Your task to perform on an android device: toggle location history Image 0: 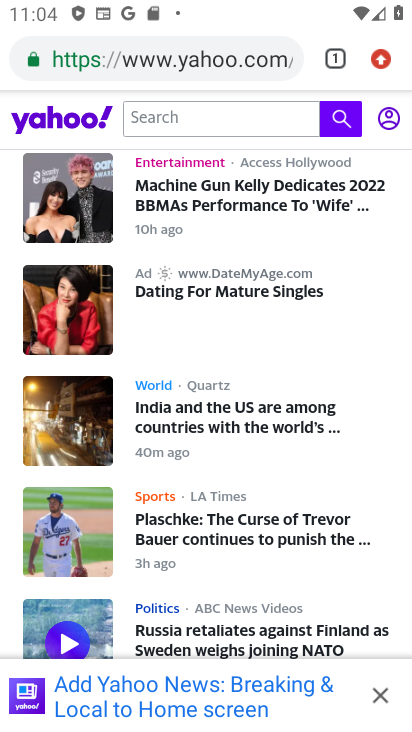
Step 0: press home button
Your task to perform on an android device: toggle location history Image 1: 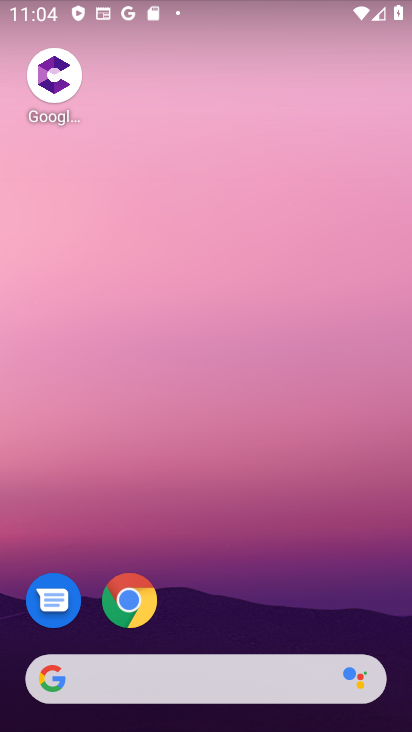
Step 1: drag from (220, 518) to (205, 9)
Your task to perform on an android device: toggle location history Image 2: 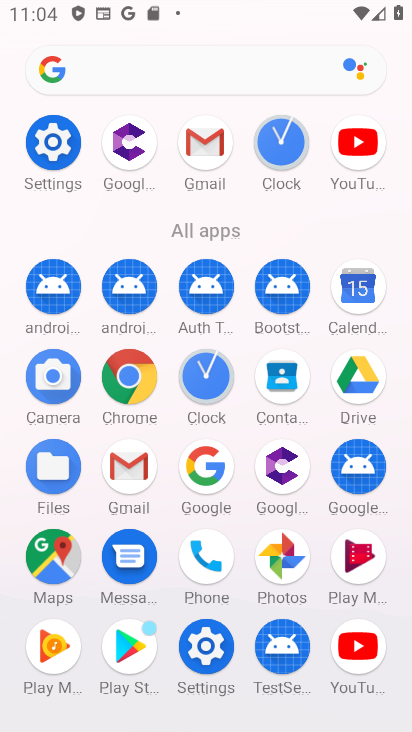
Step 2: click (54, 557)
Your task to perform on an android device: toggle location history Image 3: 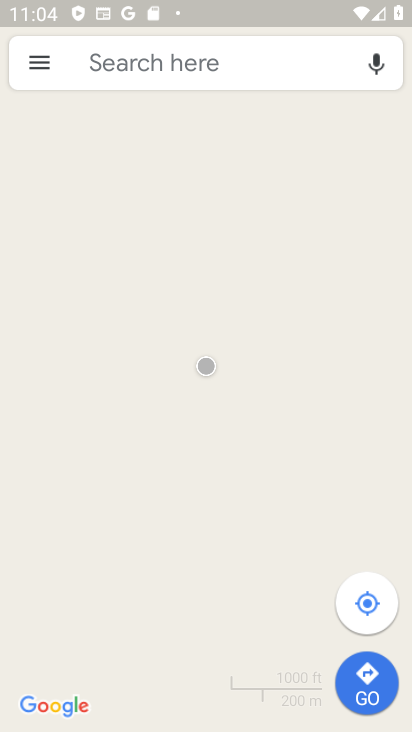
Step 3: click (46, 58)
Your task to perform on an android device: toggle location history Image 4: 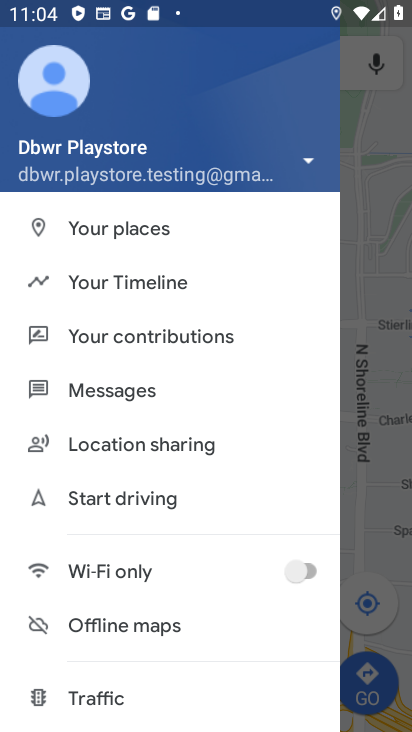
Step 4: click (156, 283)
Your task to perform on an android device: toggle location history Image 5: 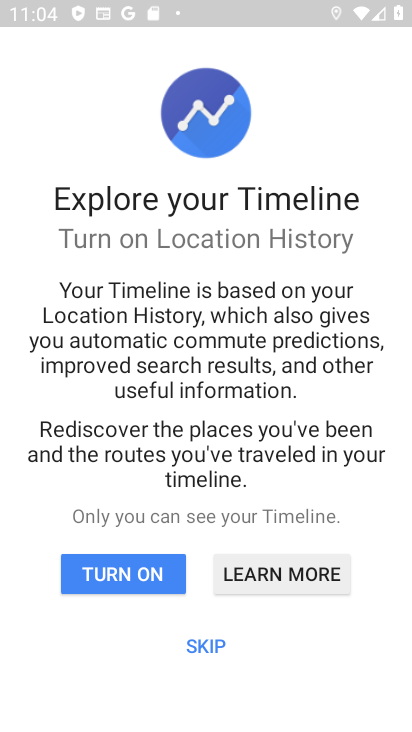
Step 5: click (202, 650)
Your task to perform on an android device: toggle location history Image 6: 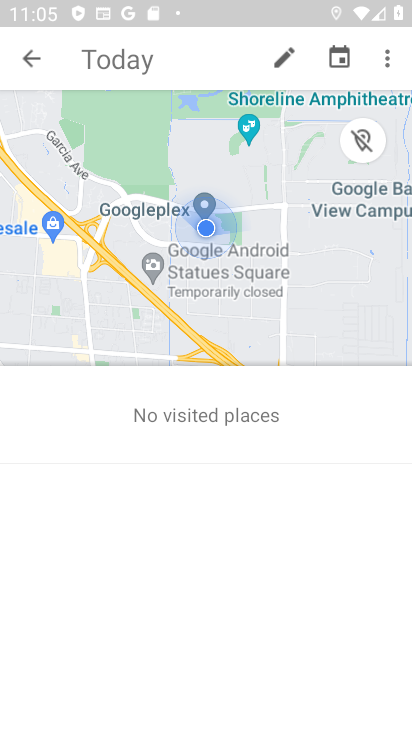
Step 6: click (389, 57)
Your task to perform on an android device: toggle location history Image 7: 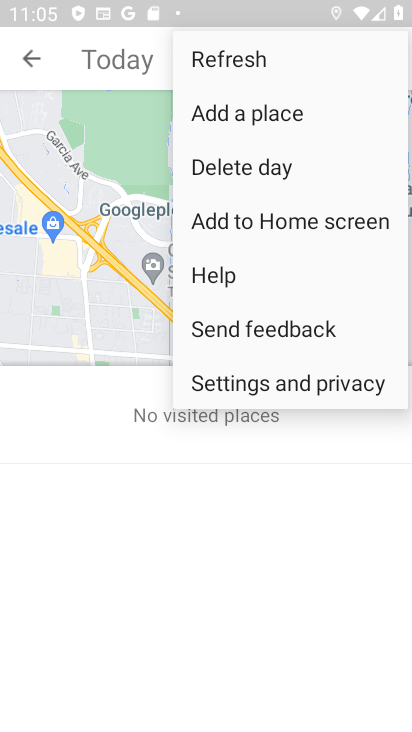
Step 7: click (300, 381)
Your task to perform on an android device: toggle location history Image 8: 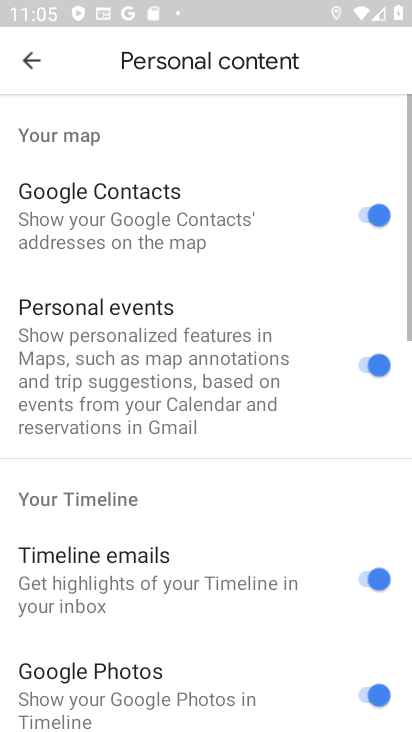
Step 8: click (280, 483)
Your task to perform on an android device: toggle location history Image 9: 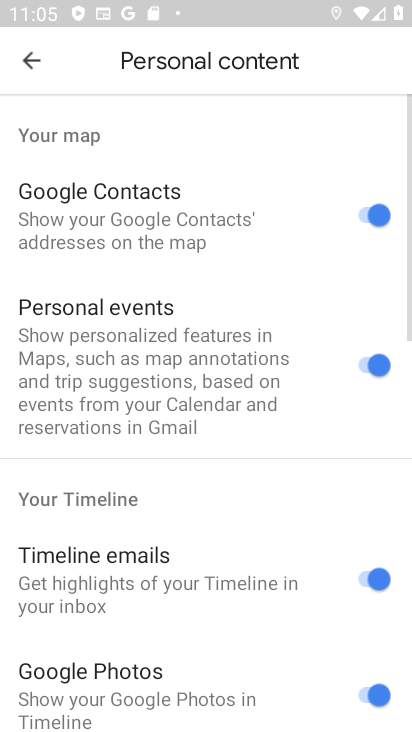
Step 9: drag from (280, 483) to (219, 142)
Your task to perform on an android device: toggle location history Image 10: 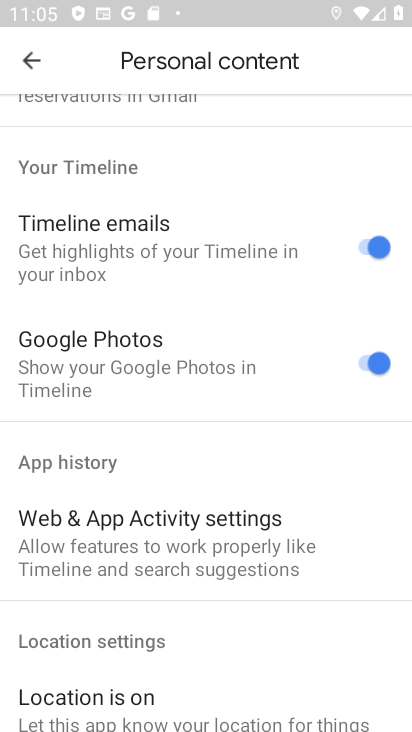
Step 10: drag from (239, 608) to (205, 222)
Your task to perform on an android device: toggle location history Image 11: 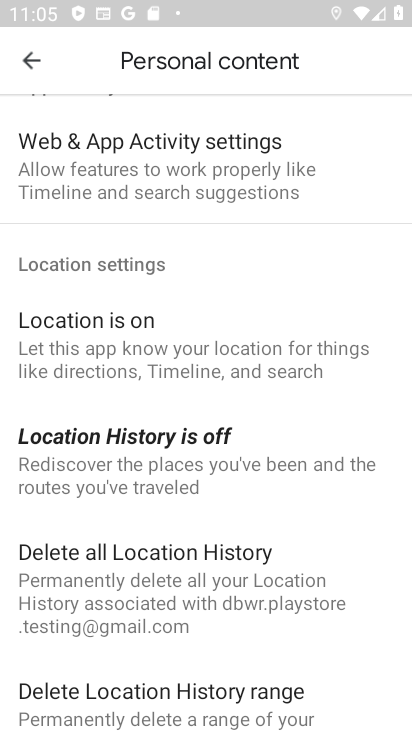
Step 11: click (127, 443)
Your task to perform on an android device: toggle location history Image 12: 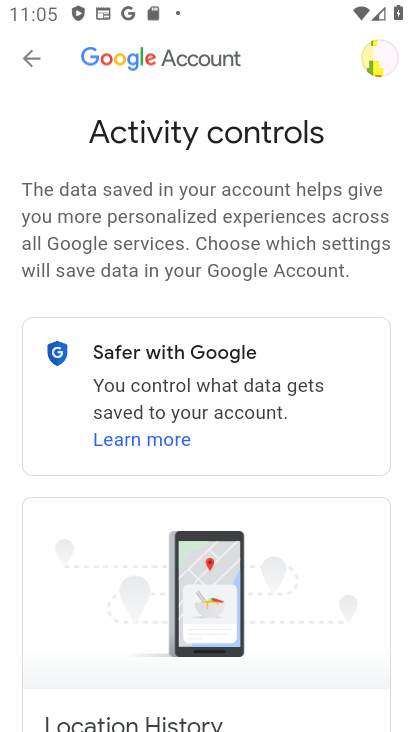
Step 12: drag from (317, 658) to (288, 300)
Your task to perform on an android device: toggle location history Image 13: 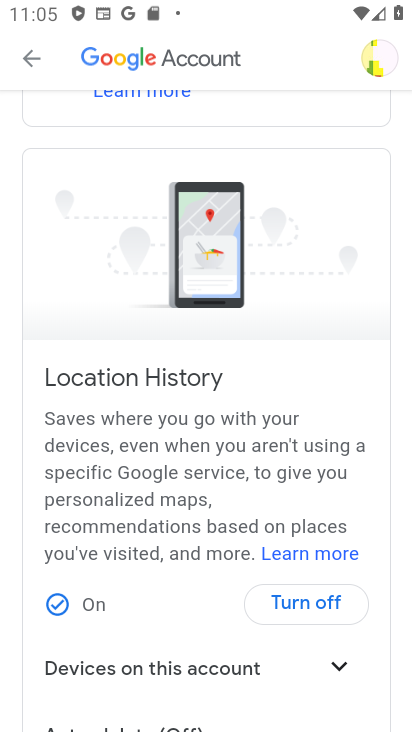
Step 13: click (316, 607)
Your task to perform on an android device: toggle location history Image 14: 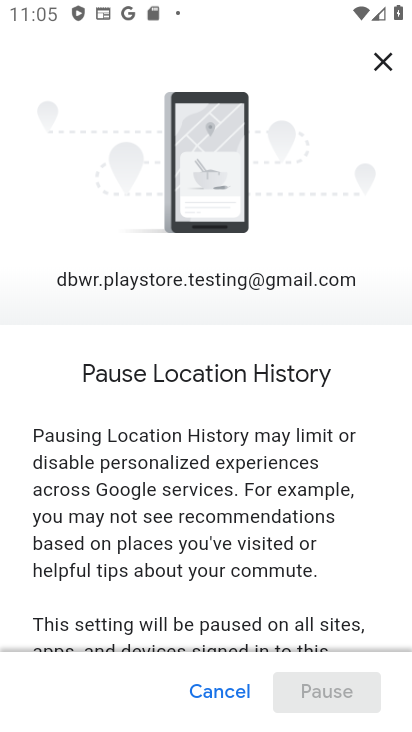
Step 14: drag from (284, 563) to (185, 238)
Your task to perform on an android device: toggle location history Image 15: 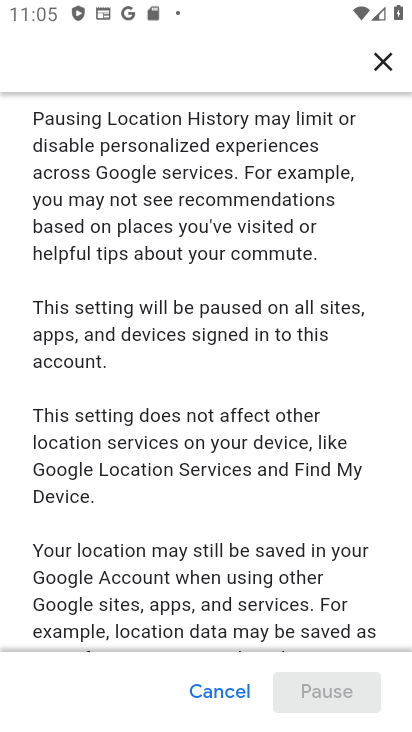
Step 15: drag from (290, 547) to (255, 197)
Your task to perform on an android device: toggle location history Image 16: 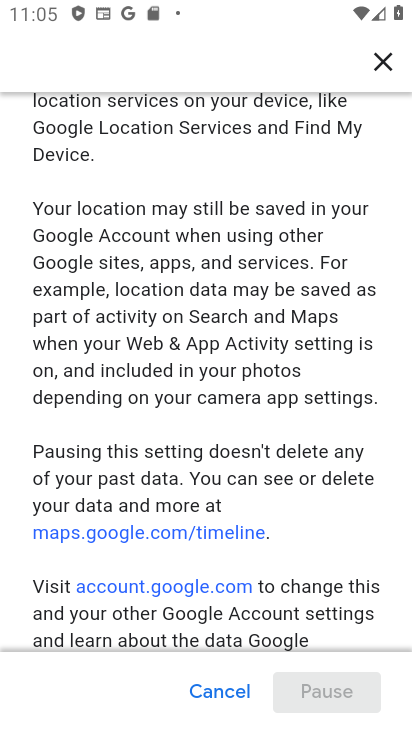
Step 16: drag from (334, 581) to (313, 308)
Your task to perform on an android device: toggle location history Image 17: 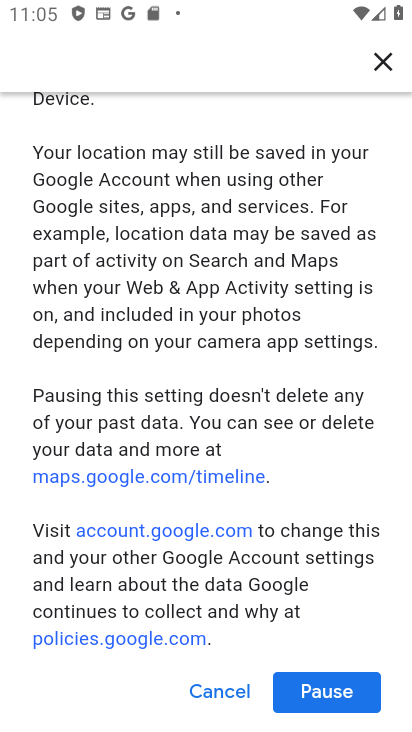
Step 17: click (338, 694)
Your task to perform on an android device: toggle location history Image 18: 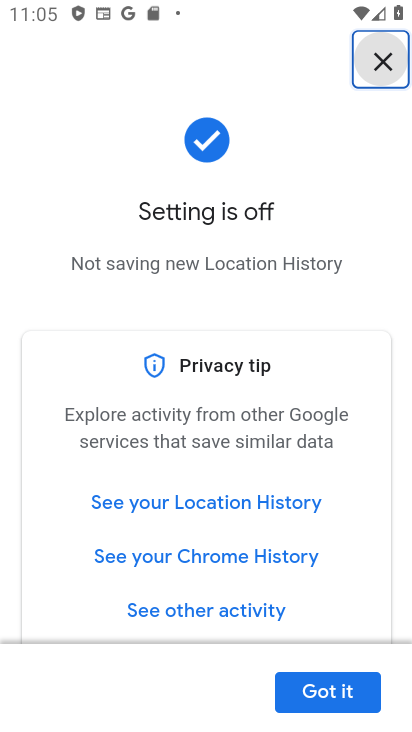
Step 18: click (338, 694)
Your task to perform on an android device: toggle location history Image 19: 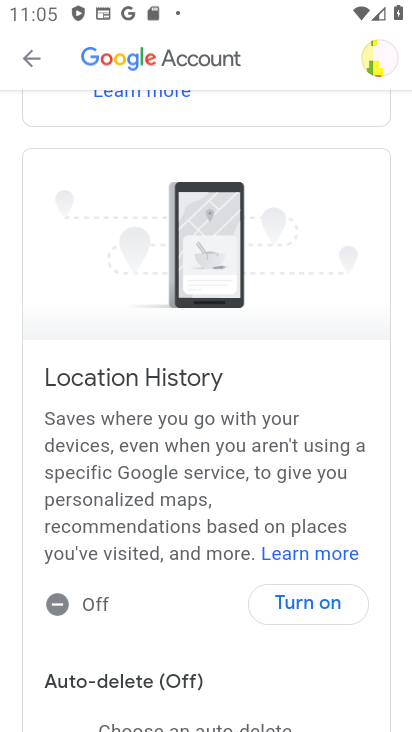
Step 19: task complete